Your task to perform on an android device: Open calendar and show me the third week of next month Image 0: 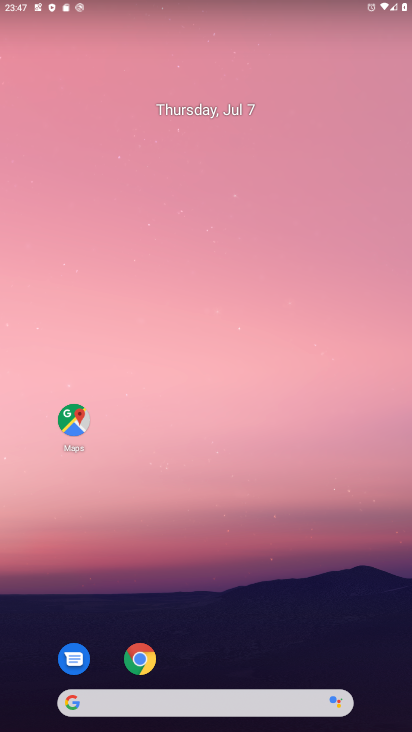
Step 0: click (185, 105)
Your task to perform on an android device: Open calendar and show me the third week of next month Image 1: 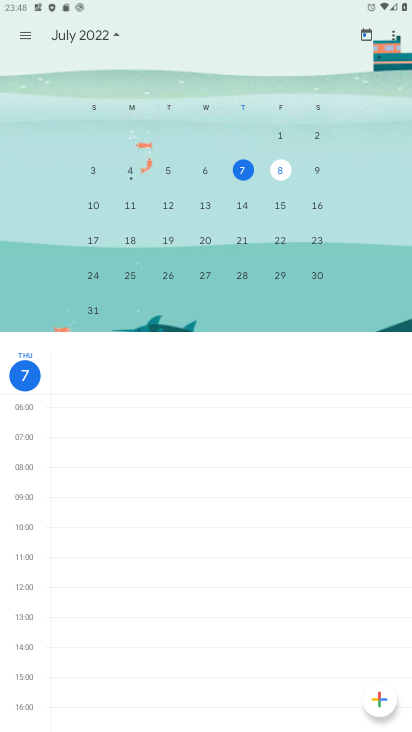
Step 1: drag from (397, 239) to (42, 225)
Your task to perform on an android device: Open calendar and show me the third week of next month Image 2: 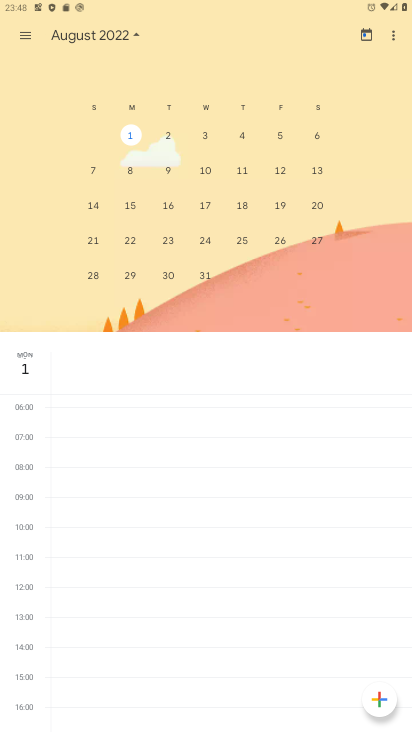
Step 2: click (162, 207)
Your task to perform on an android device: Open calendar and show me the third week of next month Image 3: 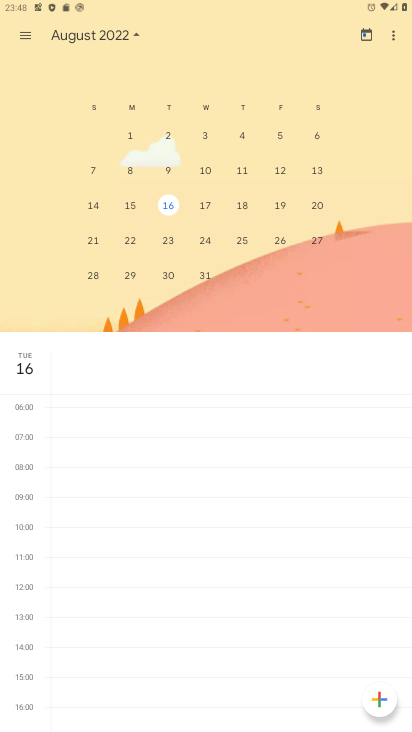
Step 3: task complete